Your task to perform on an android device: What's on my calendar today? Image 0: 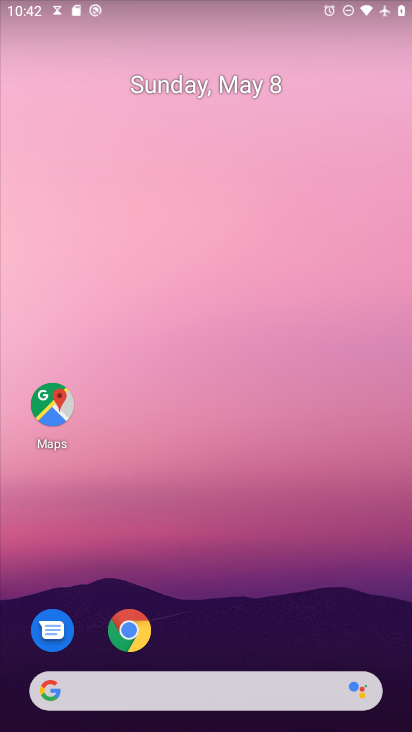
Step 0: drag from (234, 698) to (400, 19)
Your task to perform on an android device: What's on my calendar today? Image 1: 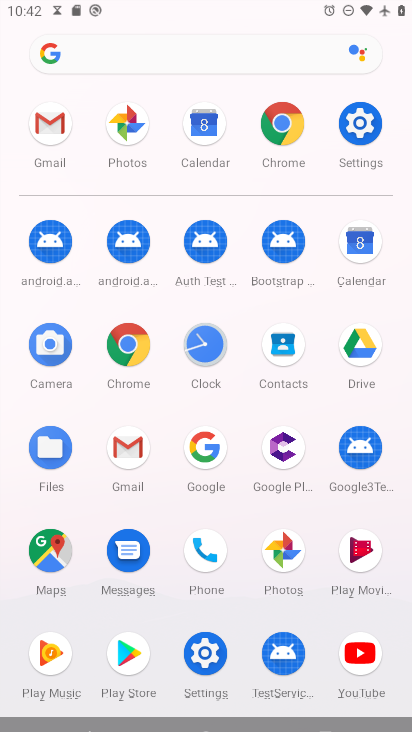
Step 1: click (369, 252)
Your task to perform on an android device: What's on my calendar today? Image 2: 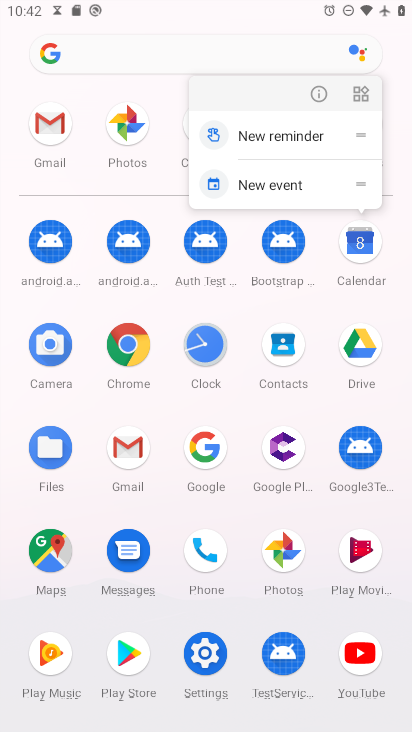
Step 2: click (364, 247)
Your task to perform on an android device: What's on my calendar today? Image 3: 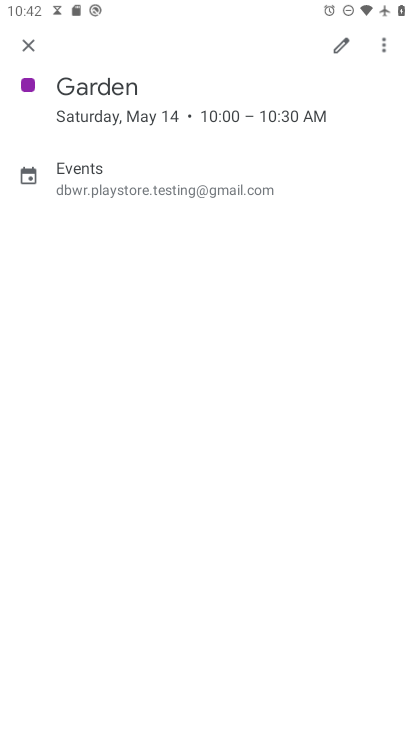
Step 3: click (29, 49)
Your task to perform on an android device: What's on my calendar today? Image 4: 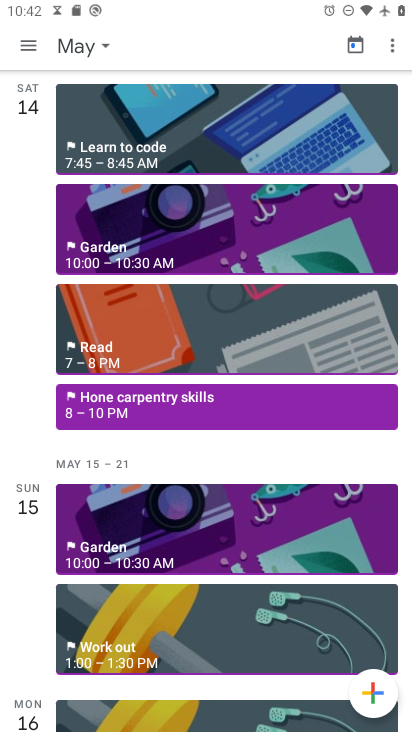
Step 4: click (69, 44)
Your task to perform on an android device: What's on my calendar today? Image 5: 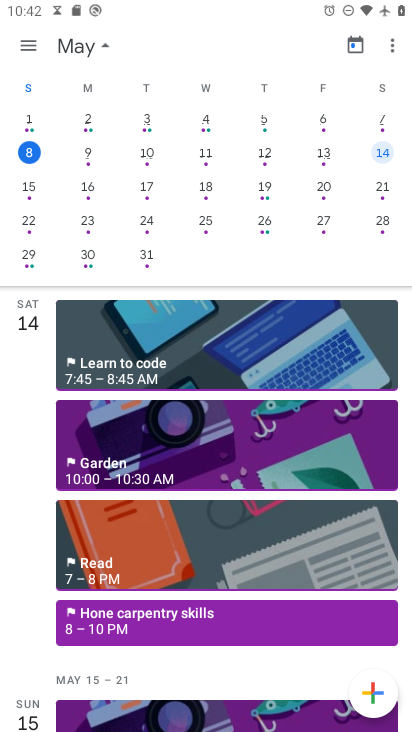
Step 5: click (34, 151)
Your task to perform on an android device: What's on my calendar today? Image 6: 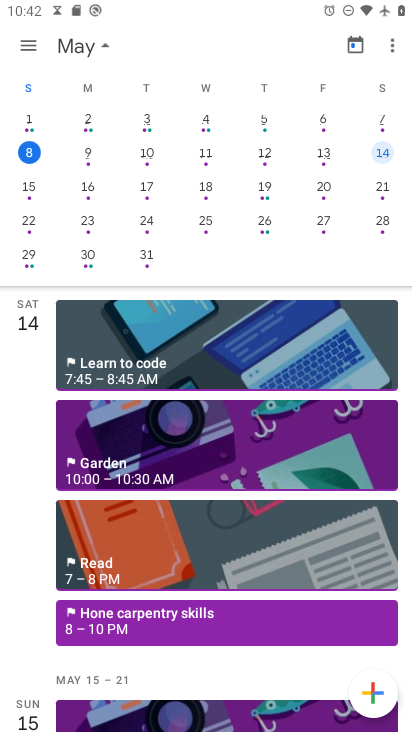
Step 6: click (29, 155)
Your task to perform on an android device: What's on my calendar today? Image 7: 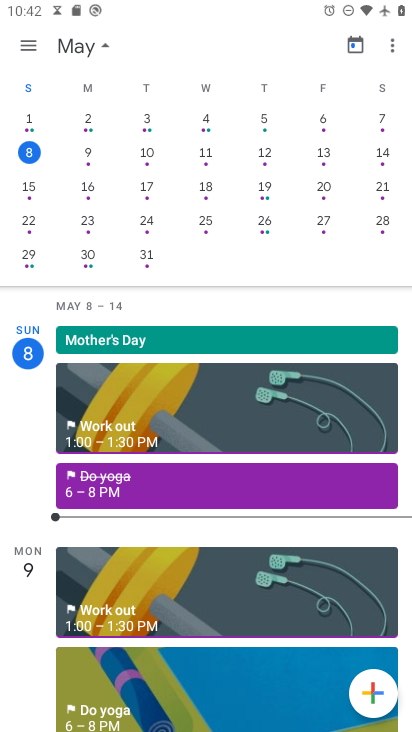
Step 7: click (38, 154)
Your task to perform on an android device: What's on my calendar today? Image 8: 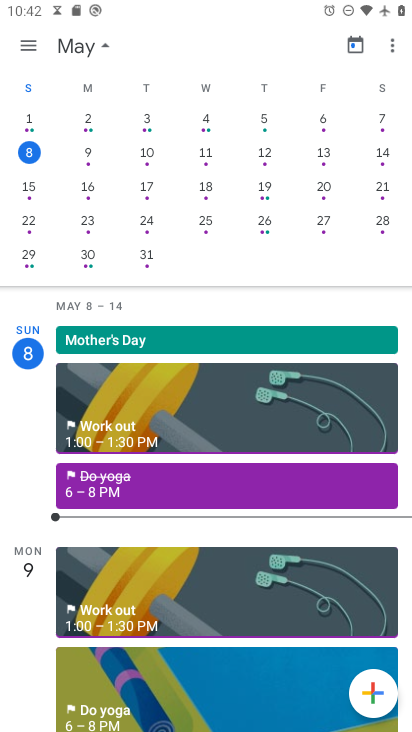
Step 8: click (33, 47)
Your task to perform on an android device: What's on my calendar today? Image 9: 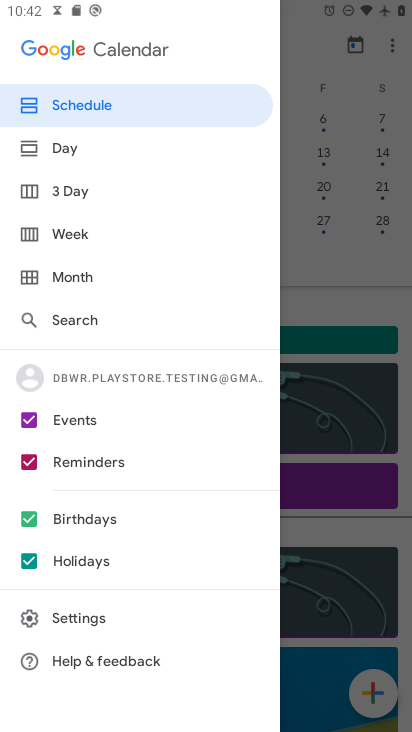
Step 9: click (110, 107)
Your task to perform on an android device: What's on my calendar today? Image 10: 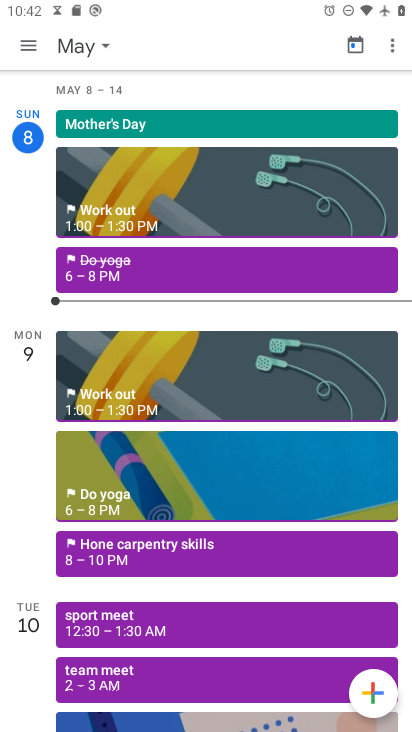
Step 10: click (213, 262)
Your task to perform on an android device: What's on my calendar today? Image 11: 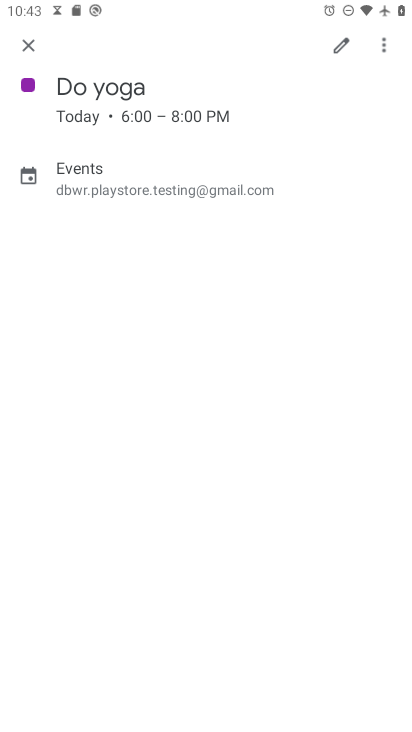
Step 11: task complete